Your task to perform on an android device: turn smart compose on in the gmail app Image 0: 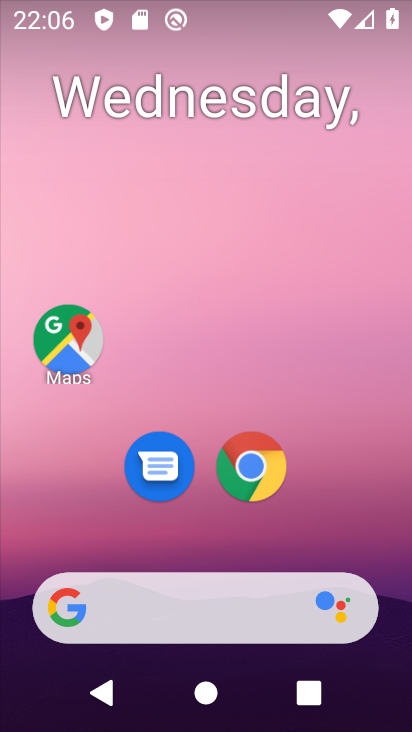
Step 0: drag from (203, 529) to (271, 52)
Your task to perform on an android device: turn smart compose on in the gmail app Image 1: 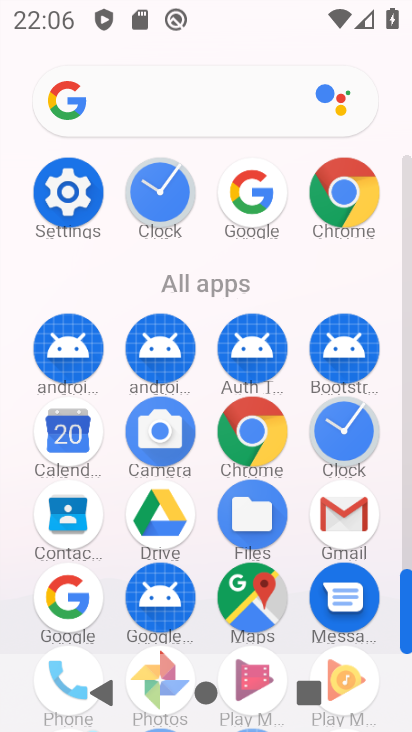
Step 1: click (342, 504)
Your task to perform on an android device: turn smart compose on in the gmail app Image 2: 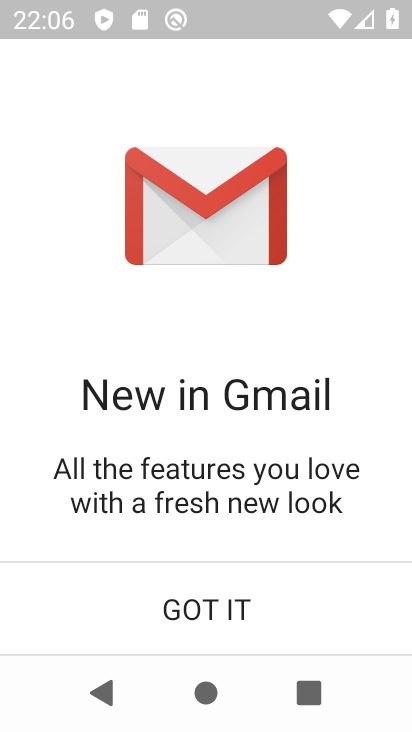
Step 2: click (218, 621)
Your task to perform on an android device: turn smart compose on in the gmail app Image 3: 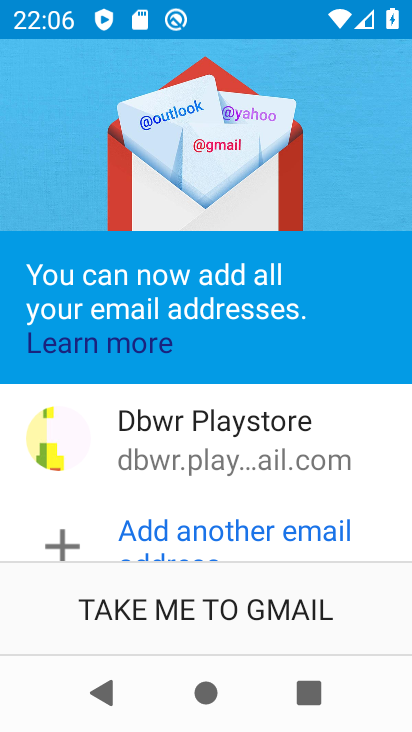
Step 3: click (199, 627)
Your task to perform on an android device: turn smart compose on in the gmail app Image 4: 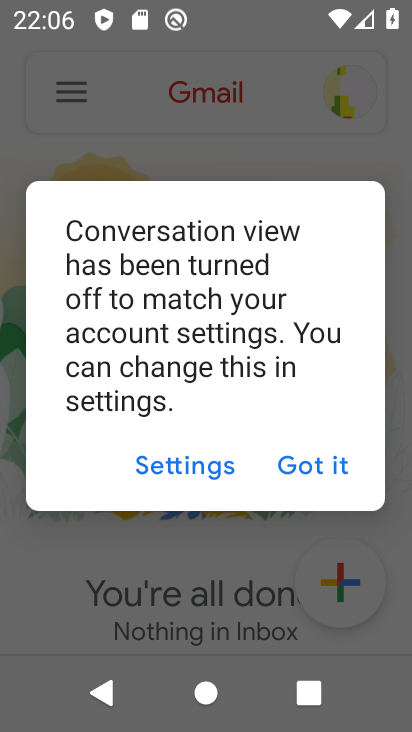
Step 4: click (323, 476)
Your task to perform on an android device: turn smart compose on in the gmail app Image 5: 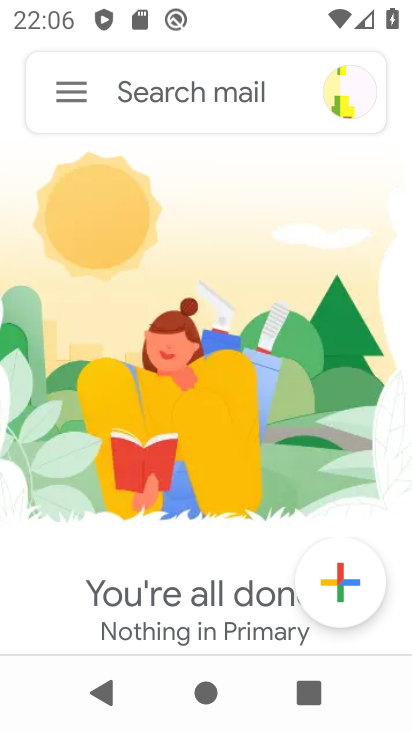
Step 5: click (63, 86)
Your task to perform on an android device: turn smart compose on in the gmail app Image 6: 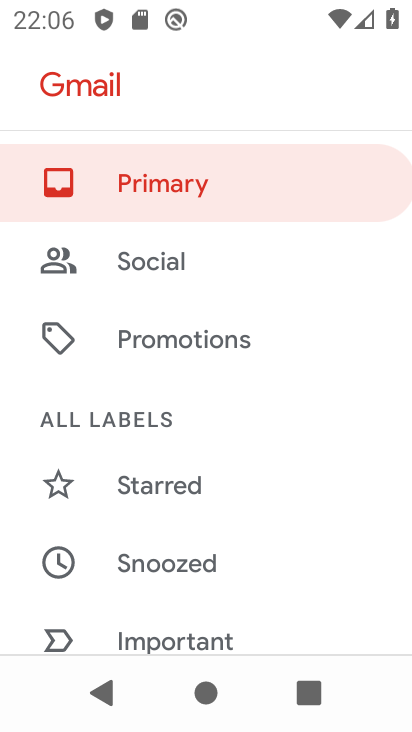
Step 6: drag from (246, 632) to (292, 78)
Your task to perform on an android device: turn smart compose on in the gmail app Image 7: 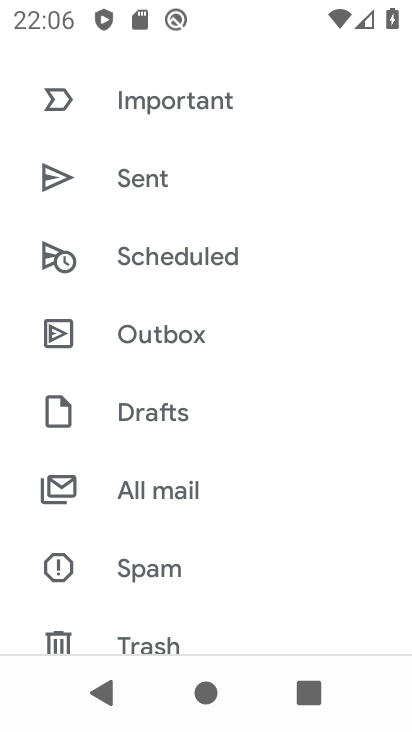
Step 7: drag from (218, 599) to (236, 135)
Your task to perform on an android device: turn smart compose on in the gmail app Image 8: 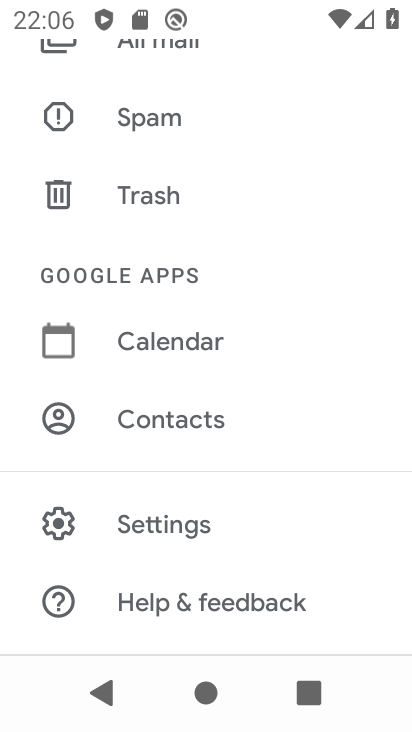
Step 8: click (222, 522)
Your task to perform on an android device: turn smart compose on in the gmail app Image 9: 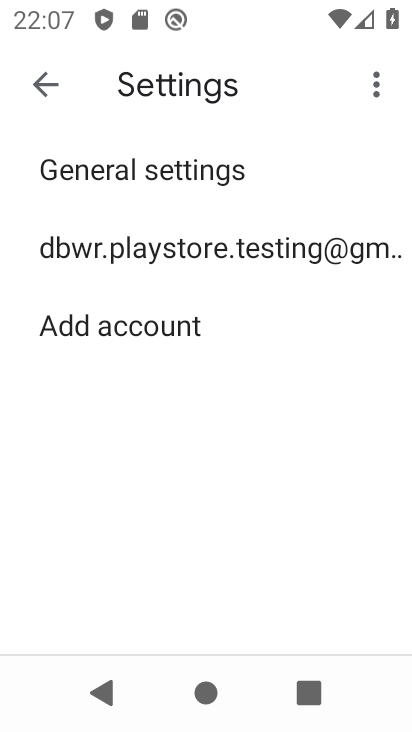
Step 9: click (231, 250)
Your task to perform on an android device: turn smart compose on in the gmail app Image 10: 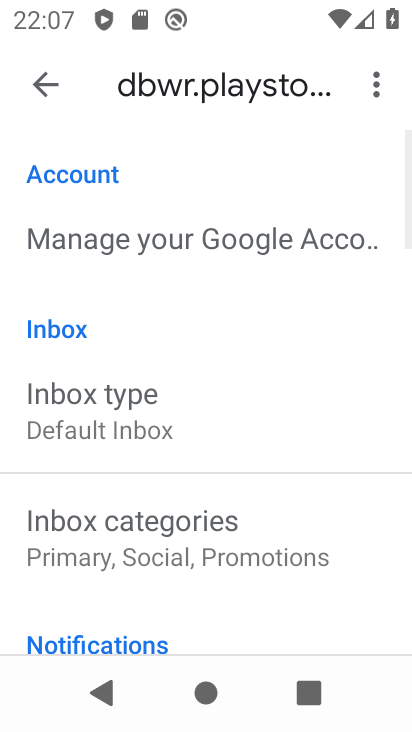
Step 10: task complete